Your task to perform on an android device: find snoozed emails in the gmail app Image 0: 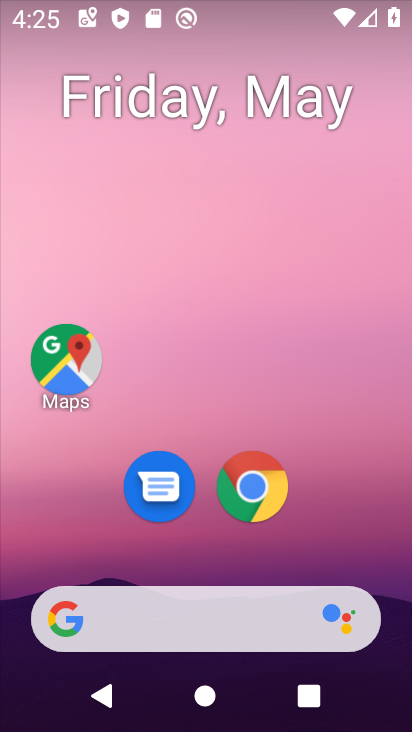
Step 0: drag from (343, 518) to (285, 8)
Your task to perform on an android device: find snoozed emails in the gmail app Image 1: 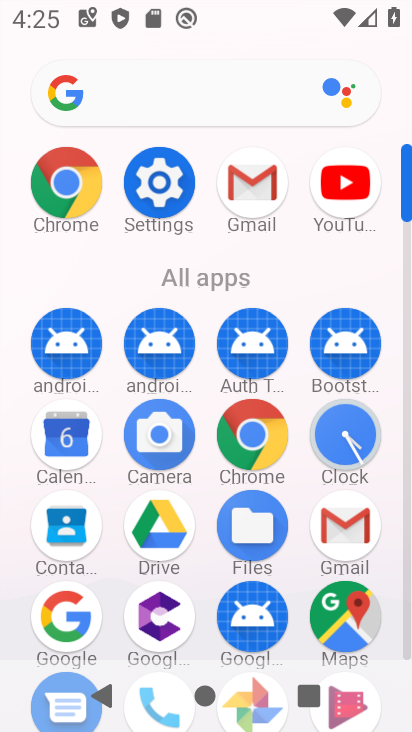
Step 1: drag from (1, 568) to (4, 218)
Your task to perform on an android device: find snoozed emails in the gmail app Image 2: 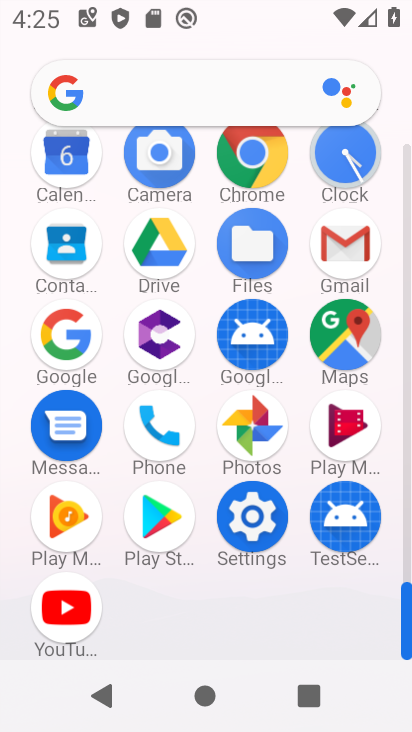
Step 2: click (344, 237)
Your task to perform on an android device: find snoozed emails in the gmail app Image 3: 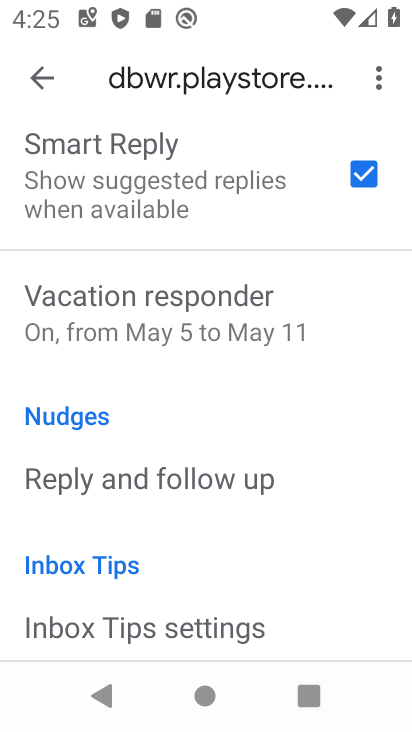
Step 3: drag from (213, 548) to (218, 164)
Your task to perform on an android device: find snoozed emails in the gmail app Image 4: 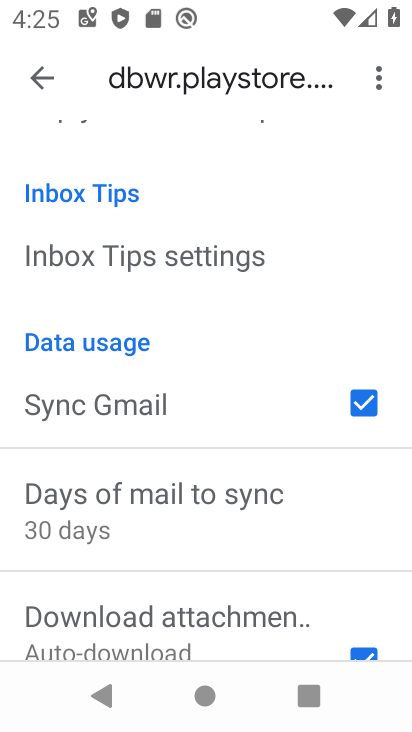
Step 4: drag from (198, 516) to (207, 202)
Your task to perform on an android device: find snoozed emails in the gmail app Image 5: 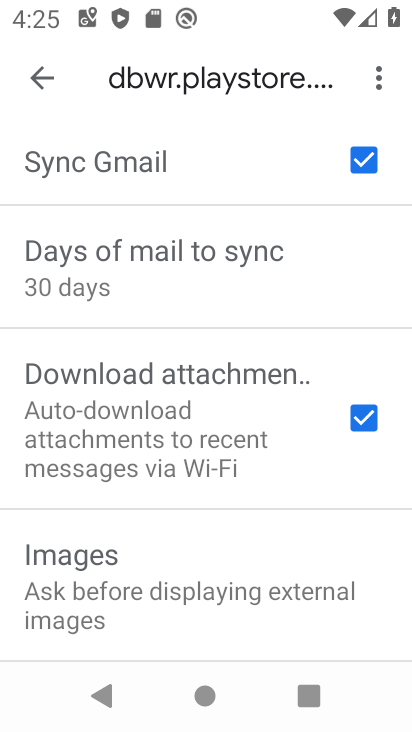
Step 5: drag from (165, 611) to (190, 189)
Your task to perform on an android device: find snoozed emails in the gmail app Image 6: 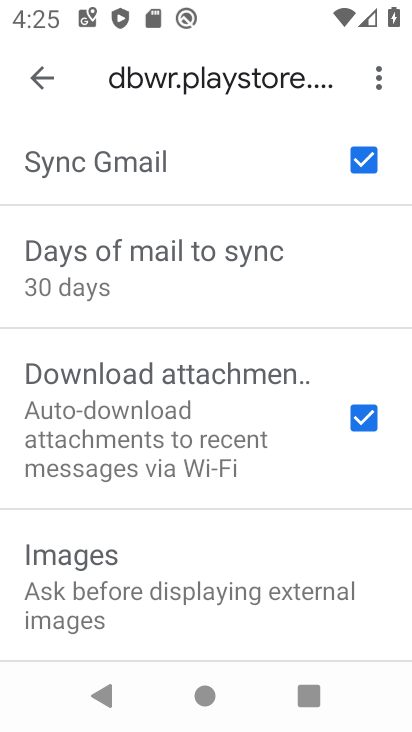
Step 6: drag from (122, 593) to (174, 186)
Your task to perform on an android device: find snoozed emails in the gmail app Image 7: 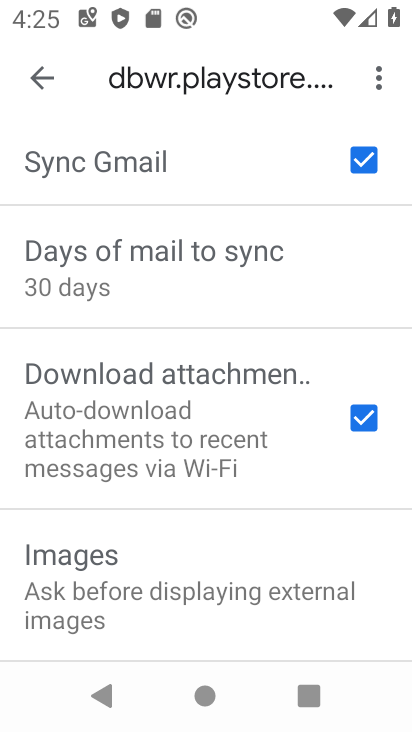
Step 7: drag from (145, 159) to (160, 580)
Your task to perform on an android device: find snoozed emails in the gmail app Image 8: 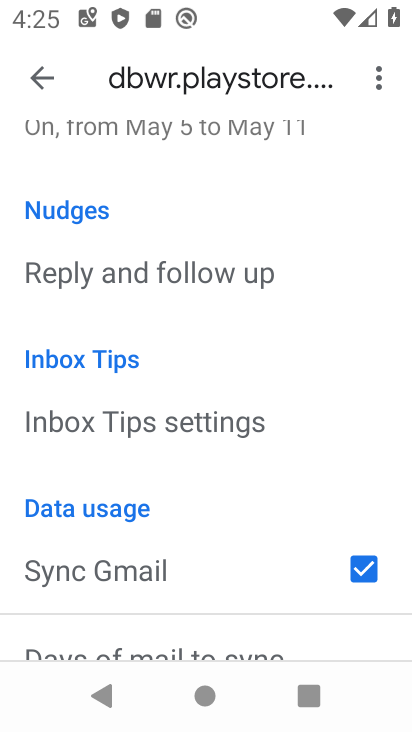
Step 8: drag from (164, 252) to (166, 551)
Your task to perform on an android device: find snoozed emails in the gmail app Image 9: 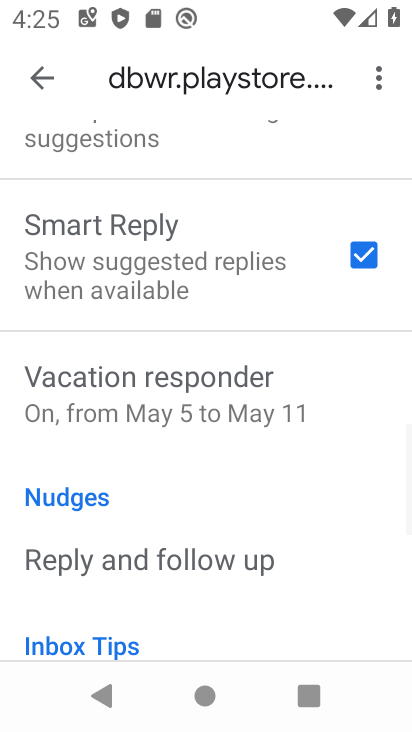
Step 9: drag from (181, 240) to (186, 541)
Your task to perform on an android device: find snoozed emails in the gmail app Image 10: 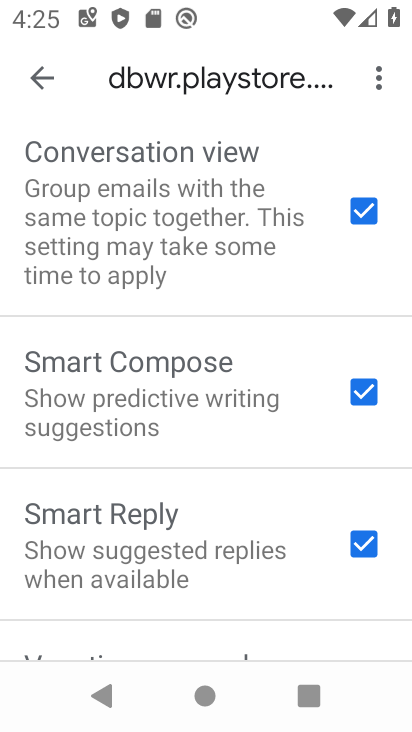
Step 10: drag from (184, 173) to (179, 588)
Your task to perform on an android device: find snoozed emails in the gmail app Image 11: 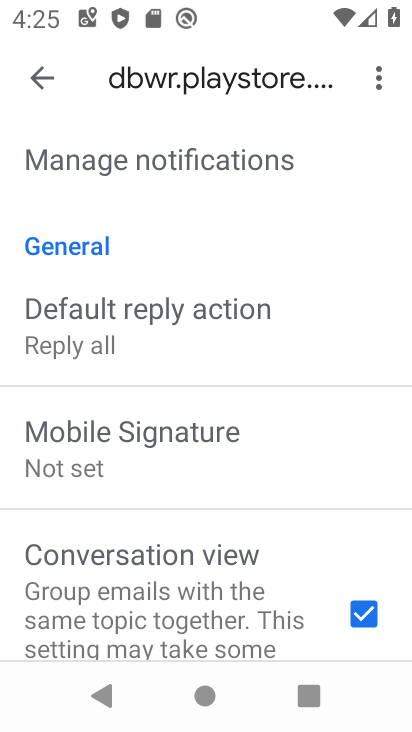
Step 11: drag from (202, 198) to (194, 590)
Your task to perform on an android device: find snoozed emails in the gmail app Image 12: 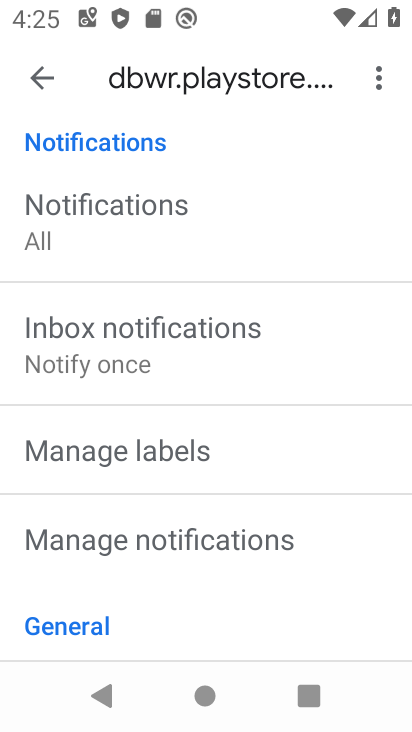
Step 12: drag from (196, 239) to (199, 549)
Your task to perform on an android device: find snoozed emails in the gmail app Image 13: 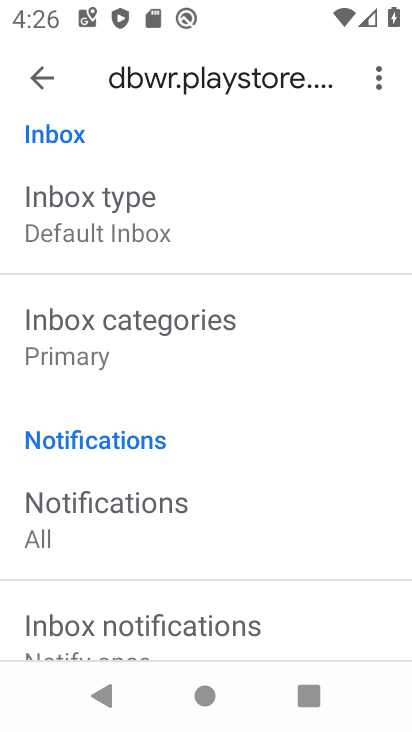
Step 13: press back button
Your task to perform on an android device: find snoozed emails in the gmail app Image 14: 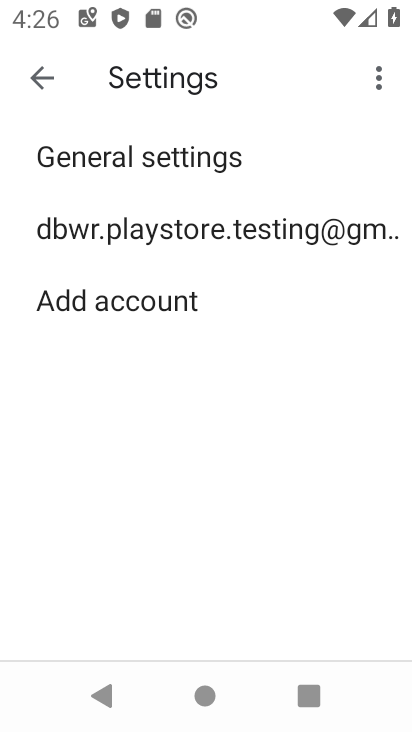
Step 14: press back button
Your task to perform on an android device: find snoozed emails in the gmail app Image 15: 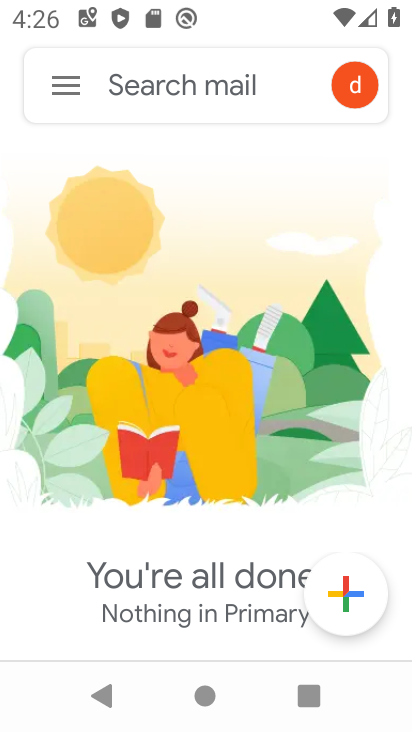
Step 15: click (53, 89)
Your task to perform on an android device: find snoozed emails in the gmail app Image 16: 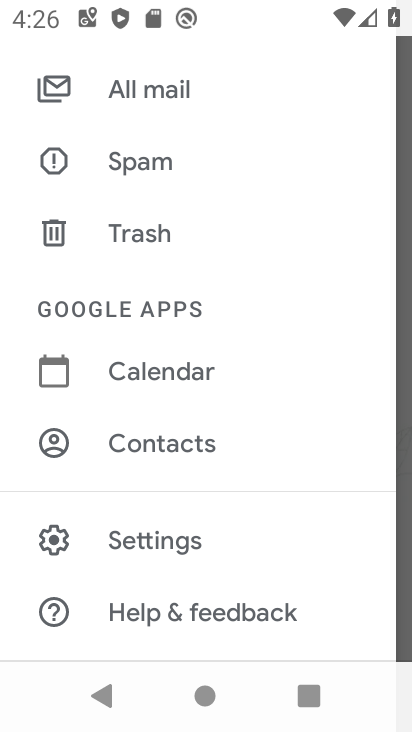
Step 16: drag from (196, 191) to (256, 578)
Your task to perform on an android device: find snoozed emails in the gmail app Image 17: 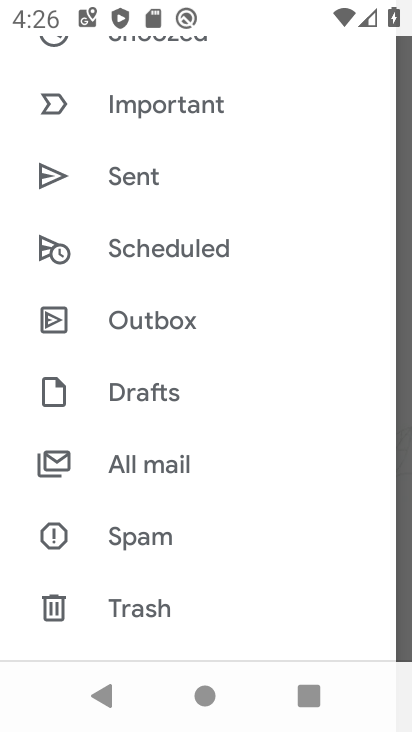
Step 17: drag from (246, 495) to (271, 114)
Your task to perform on an android device: find snoozed emails in the gmail app Image 18: 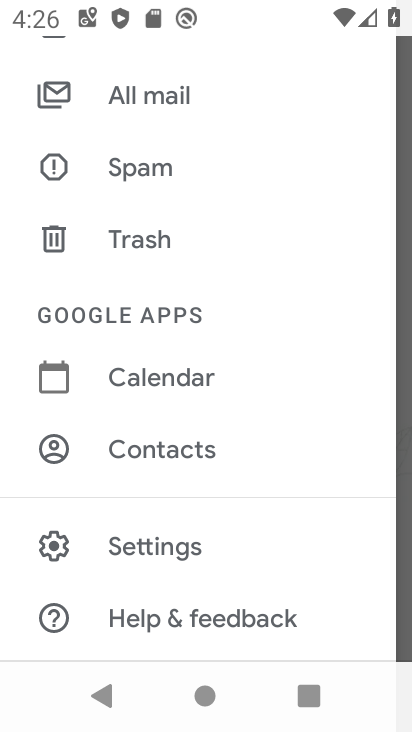
Step 18: drag from (216, 243) to (222, 576)
Your task to perform on an android device: find snoozed emails in the gmail app Image 19: 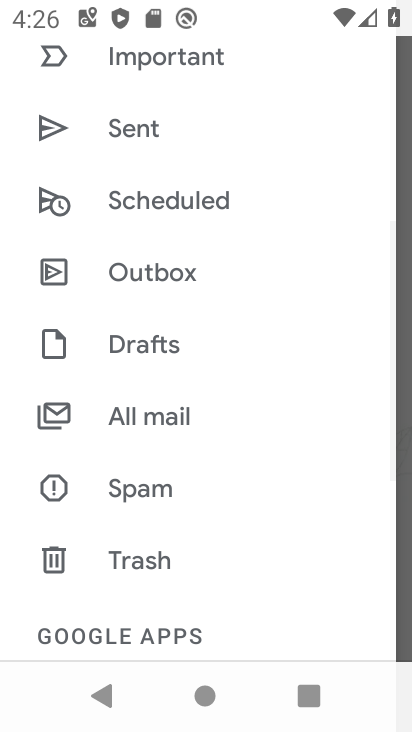
Step 19: drag from (247, 193) to (243, 563)
Your task to perform on an android device: find snoozed emails in the gmail app Image 20: 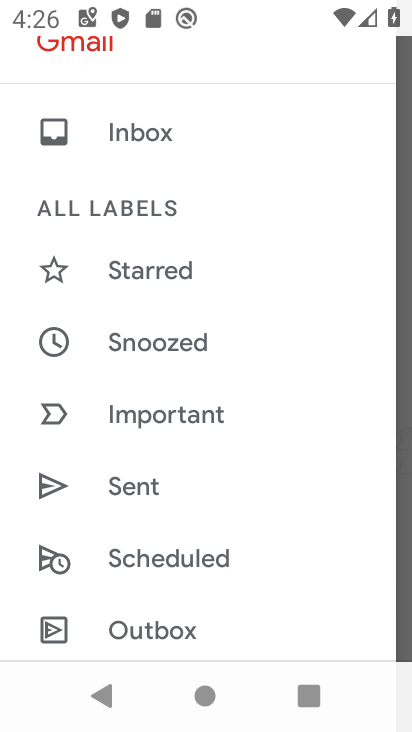
Step 20: click (188, 335)
Your task to perform on an android device: find snoozed emails in the gmail app Image 21: 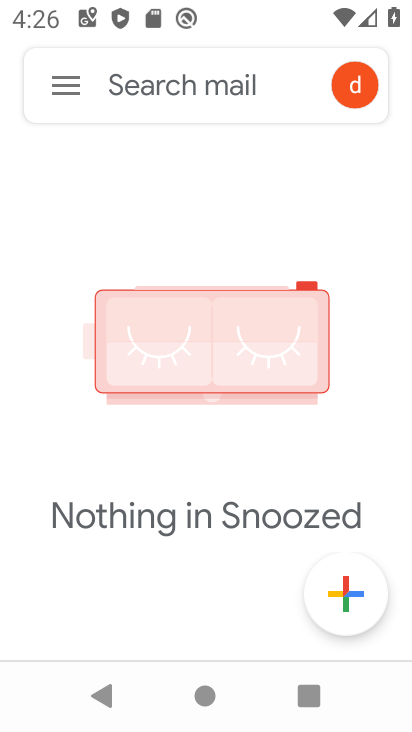
Step 21: task complete